Your task to perform on an android device: Go to Maps Image 0: 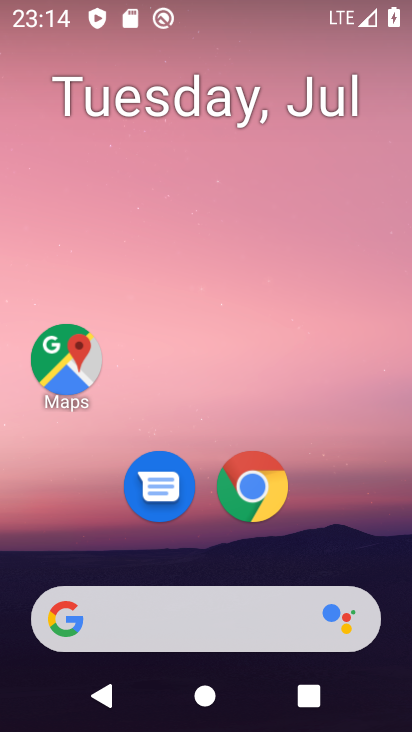
Step 0: drag from (326, 524) to (331, 130)
Your task to perform on an android device: Go to Maps Image 1: 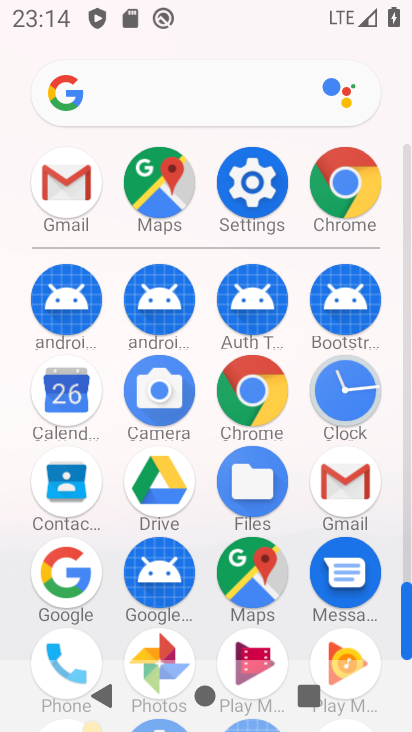
Step 1: click (258, 562)
Your task to perform on an android device: Go to Maps Image 2: 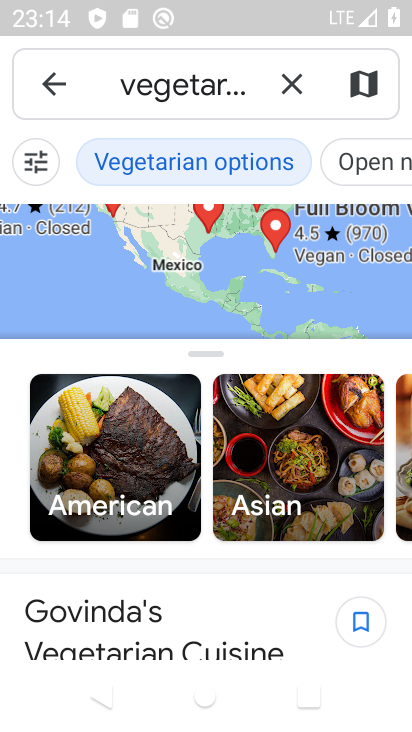
Step 2: task complete